Your task to perform on an android device: Search for Italian restaurants on Maps Image 0: 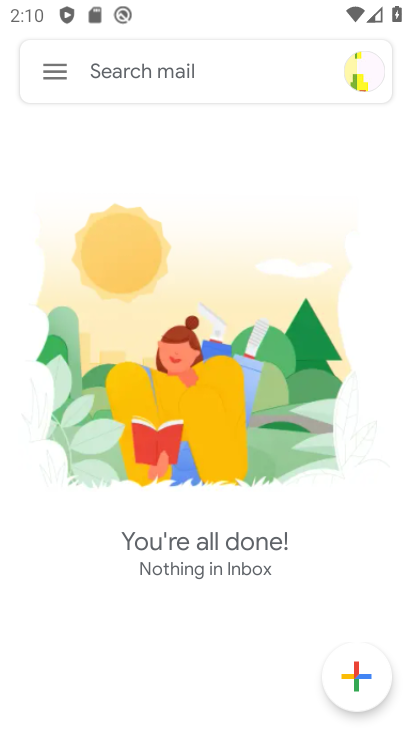
Step 0: press home button
Your task to perform on an android device: Search for Italian restaurants on Maps Image 1: 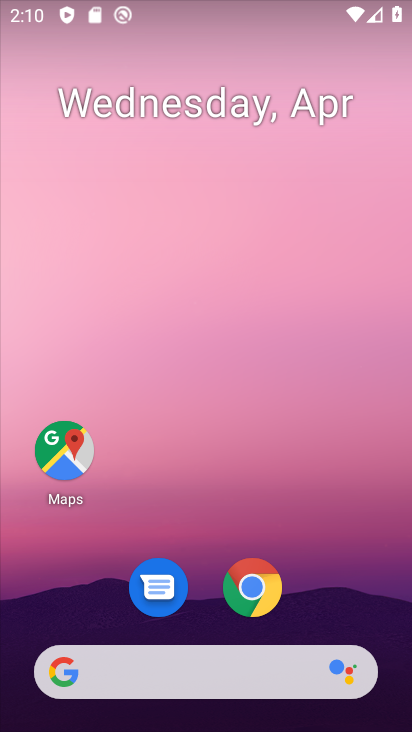
Step 1: click (76, 466)
Your task to perform on an android device: Search for Italian restaurants on Maps Image 2: 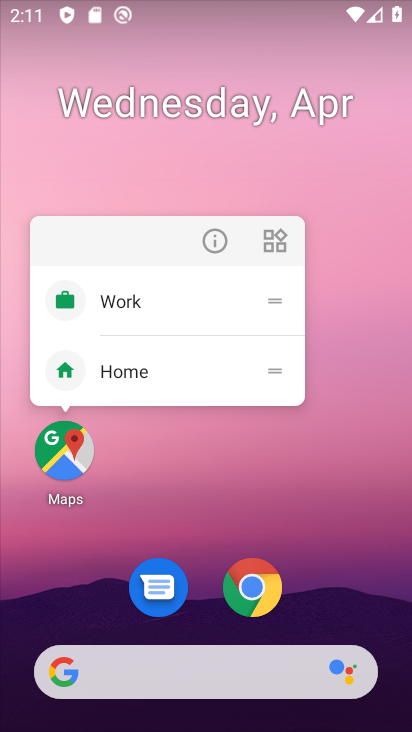
Step 2: click (77, 465)
Your task to perform on an android device: Search for Italian restaurants on Maps Image 3: 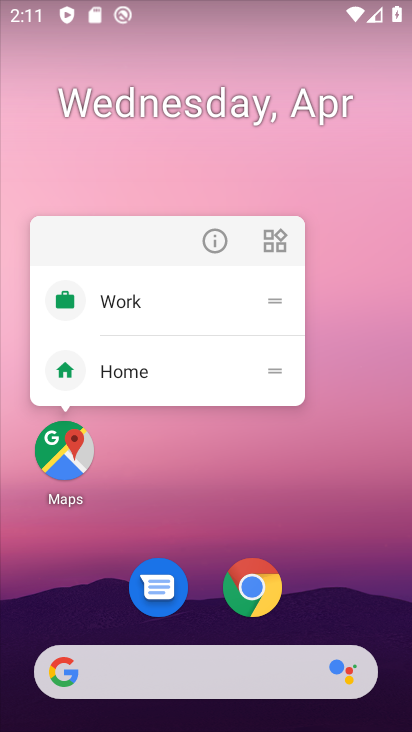
Step 3: click (77, 465)
Your task to perform on an android device: Search for Italian restaurants on Maps Image 4: 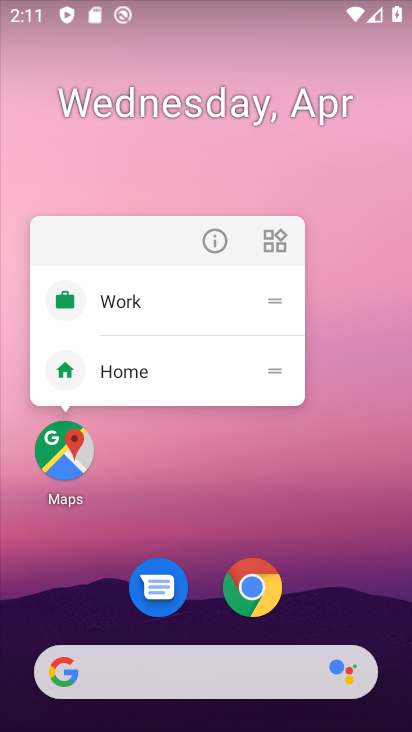
Step 4: click (77, 465)
Your task to perform on an android device: Search for Italian restaurants on Maps Image 5: 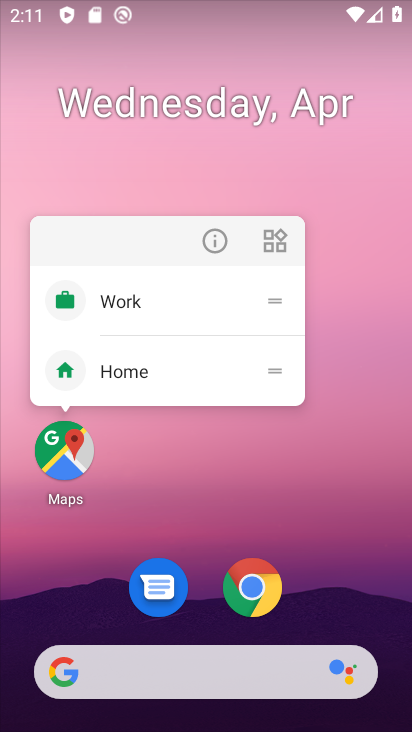
Step 5: click (77, 465)
Your task to perform on an android device: Search for Italian restaurants on Maps Image 6: 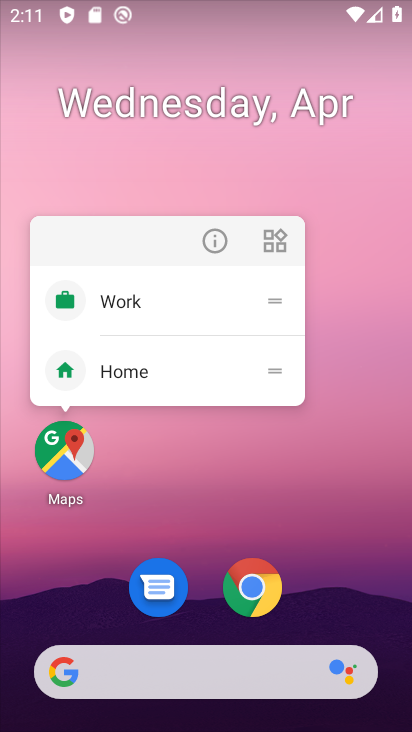
Step 6: click (77, 465)
Your task to perform on an android device: Search for Italian restaurants on Maps Image 7: 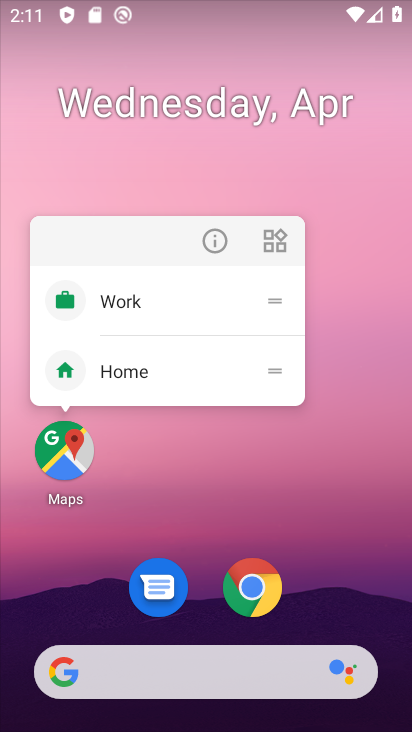
Step 7: click (77, 465)
Your task to perform on an android device: Search for Italian restaurants on Maps Image 8: 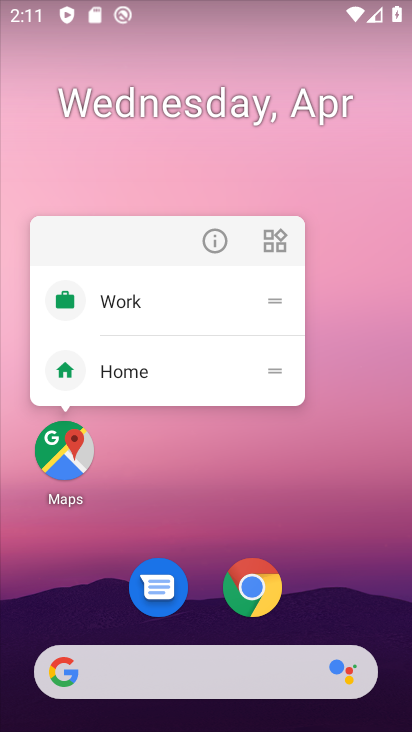
Step 8: click (85, 445)
Your task to perform on an android device: Search for Italian restaurants on Maps Image 9: 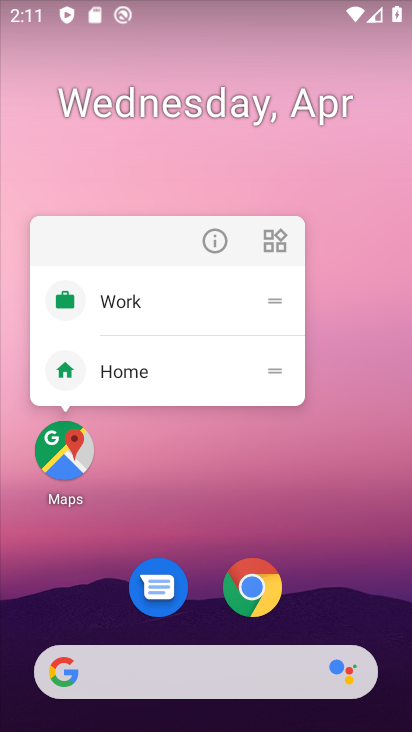
Step 9: click (85, 445)
Your task to perform on an android device: Search for Italian restaurants on Maps Image 10: 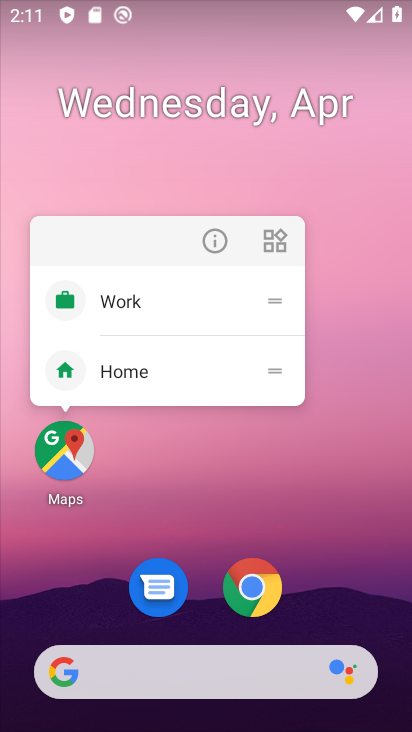
Step 10: click (85, 445)
Your task to perform on an android device: Search for Italian restaurants on Maps Image 11: 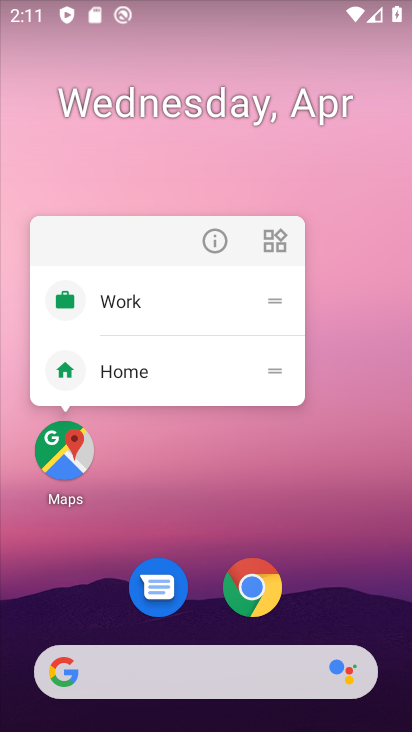
Step 11: click (86, 446)
Your task to perform on an android device: Search for Italian restaurants on Maps Image 12: 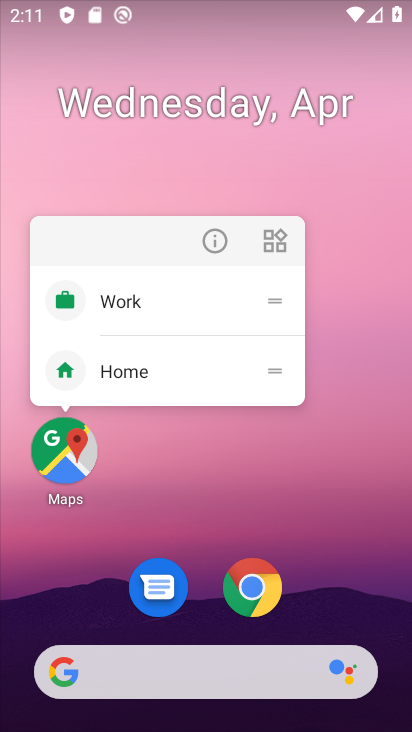
Step 12: click (86, 446)
Your task to perform on an android device: Search for Italian restaurants on Maps Image 13: 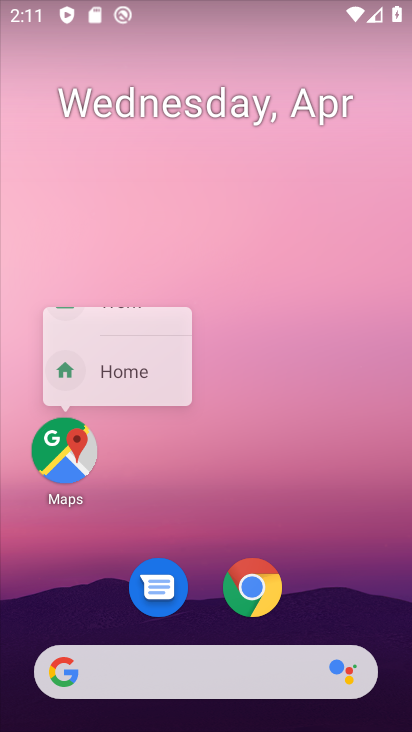
Step 13: click (86, 446)
Your task to perform on an android device: Search for Italian restaurants on Maps Image 14: 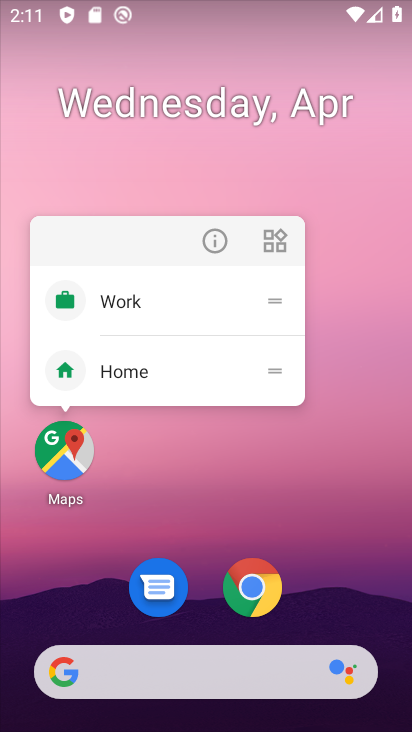
Step 14: click (71, 452)
Your task to perform on an android device: Search for Italian restaurants on Maps Image 15: 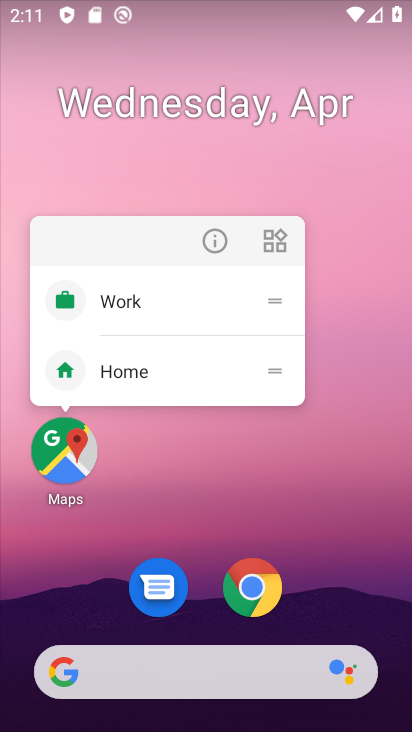
Step 15: click (71, 452)
Your task to perform on an android device: Search for Italian restaurants on Maps Image 16: 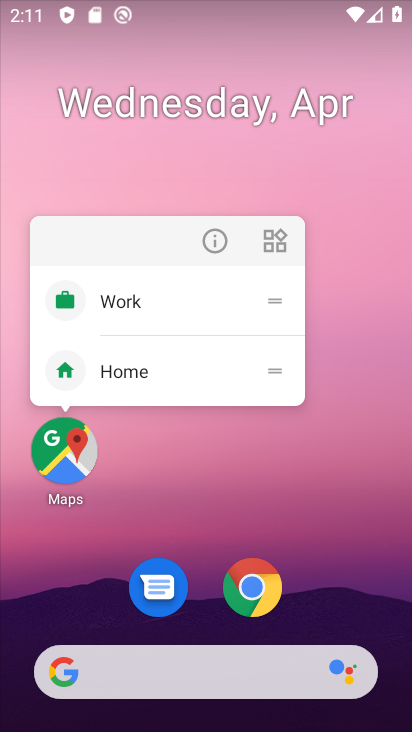
Step 16: click (71, 452)
Your task to perform on an android device: Search for Italian restaurants on Maps Image 17: 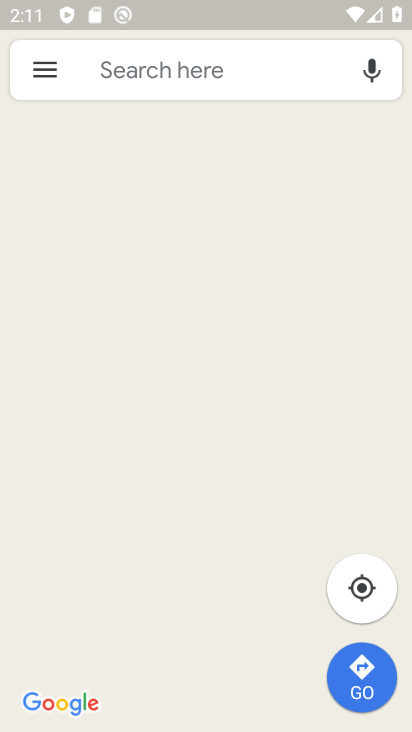
Step 17: click (231, 66)
Your task to perform on an android device: Search for Italian restaurants on Maps Image 18: 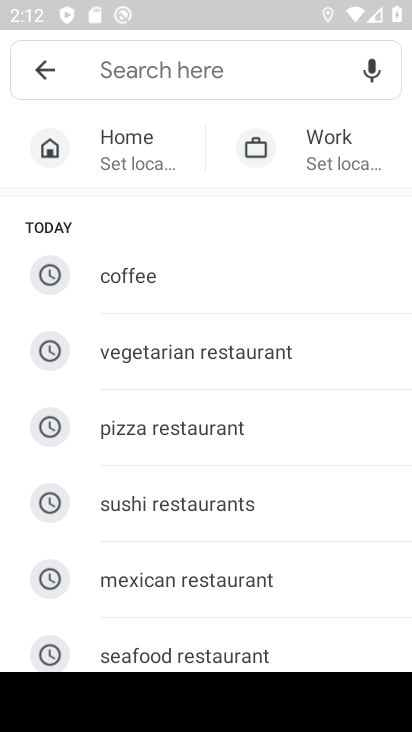
Step 18: type "italian "
Your task to perform on an android device: Search for Italian restaurants on Maps Image 19: 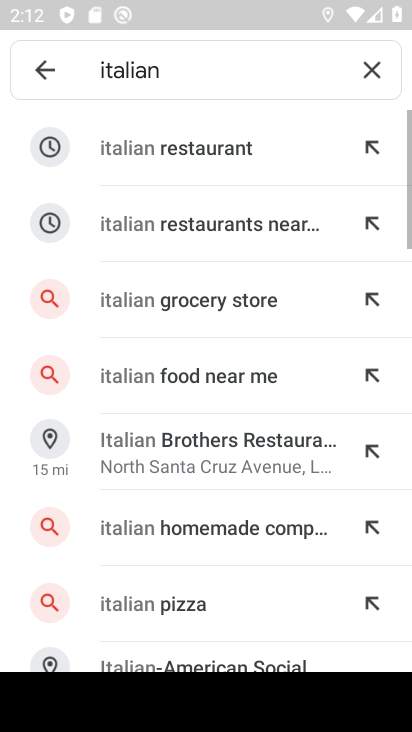
Step 19: click (272, 149)
Your task to perform on an android device: Search for Italian restaurants on Maps Image 20: 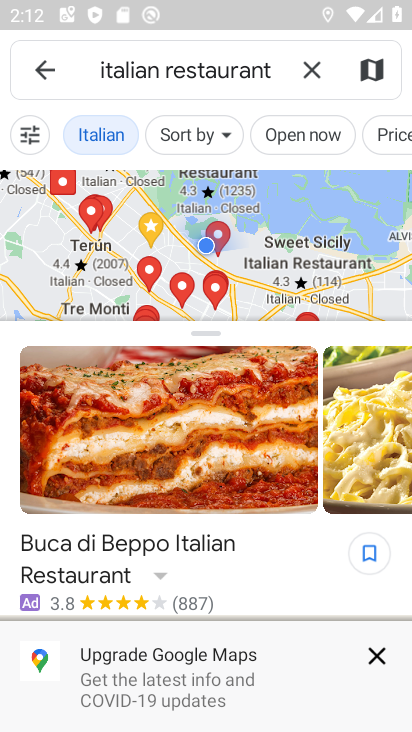
Step 20: task complete